Your task to perform on an android device: toggle data saver in the chrome app Image 0: 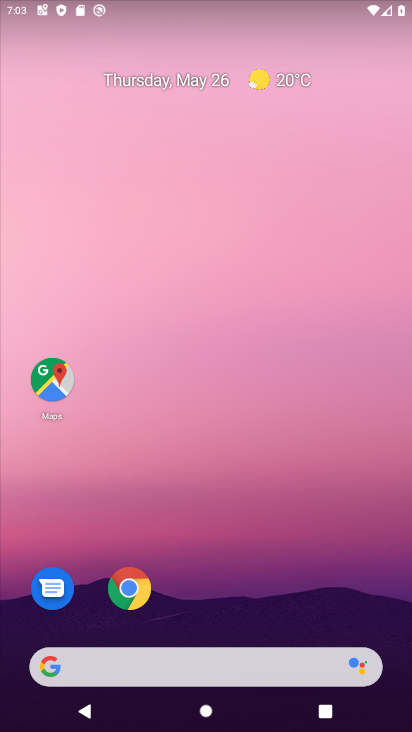
Step 0: drag from (322, 618) to (306, 91)
Your task to perform on an android device: toggle data saver in the chrome app Image 1: 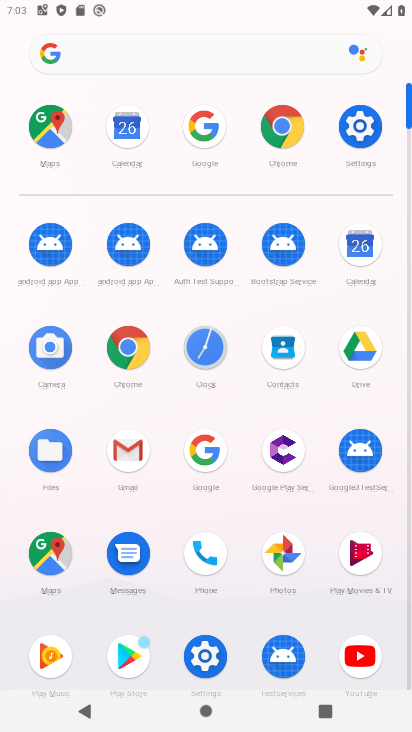
Step 1: click (287, 123)
Your task to perform on an android device: toggle data saver in the chrome app Image 2: 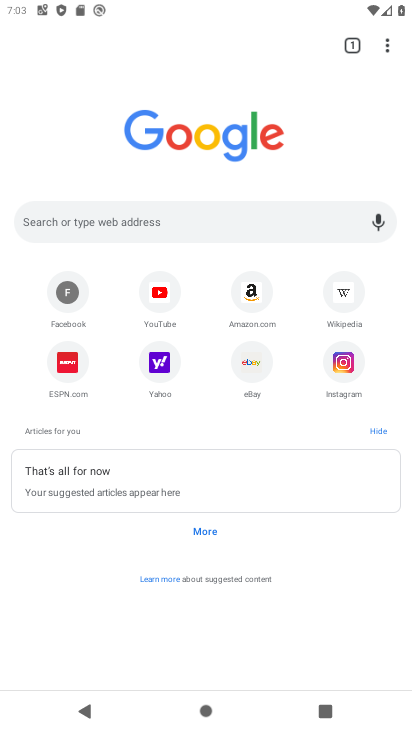
Step 2: click (387, 41)
Your task to perform on an android device: toggle data saver in the chrome app Image 3: 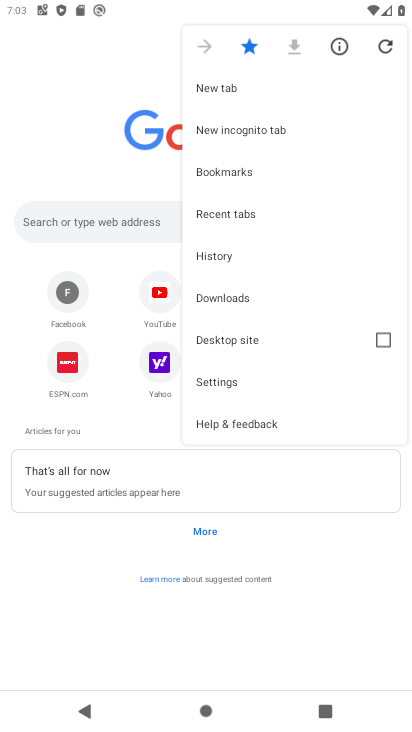
Step 3: click (241, 385)
Your task to perform on an android device: toggle data saver in the chrome app Image 4: 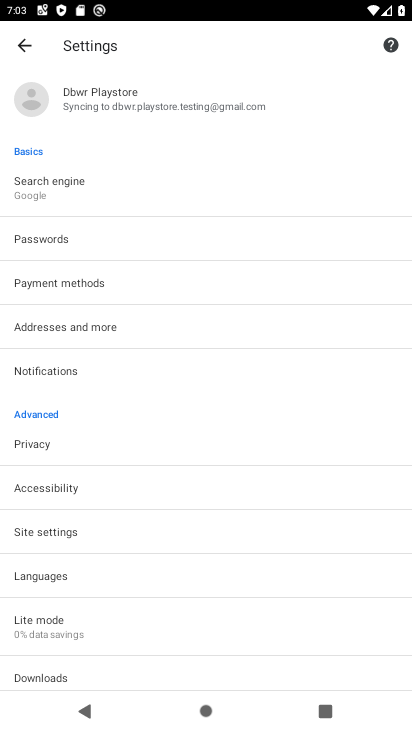
Step 4: click (91, 620)
Your task to perform on an android device: toggle data saver in the chrome app Image 5: 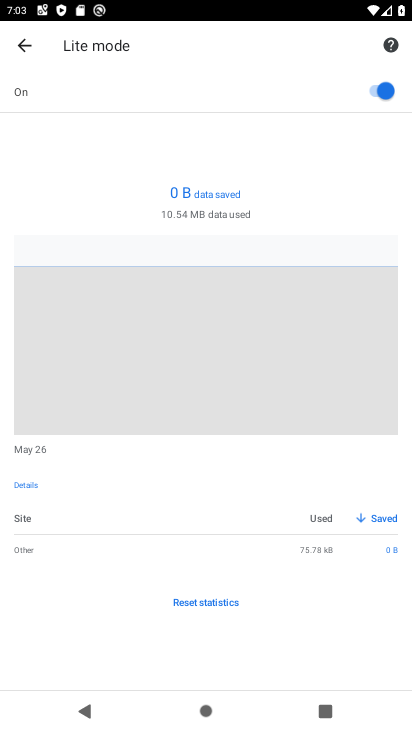
Step 5: click (371, 95)
Your task to perform on an android device: toggle data saver in the chrome app Image 6: 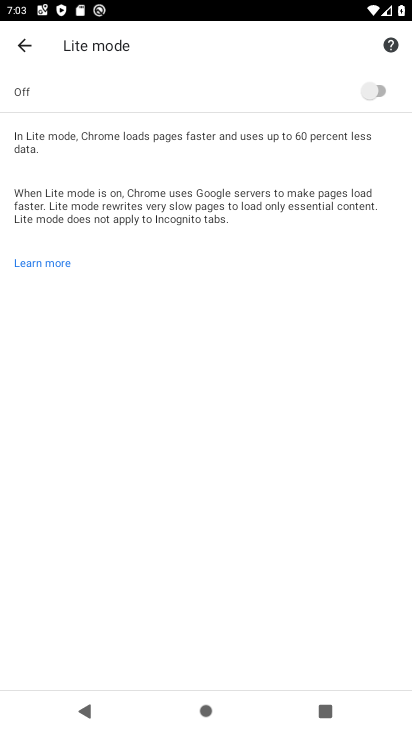
Step 6: task complete